Your task to perform on an android device: turn vacation reply on in the gmail app Image 0: 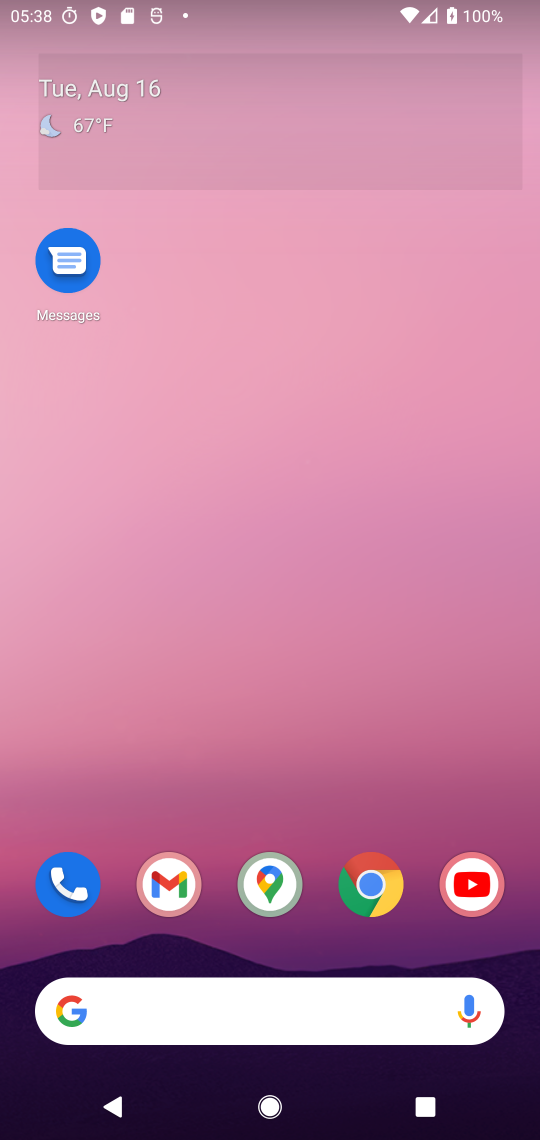
Step 0: click (177, 889)
Your task to perform on an android device: turn vacation reply on in the gmail app Image 1: 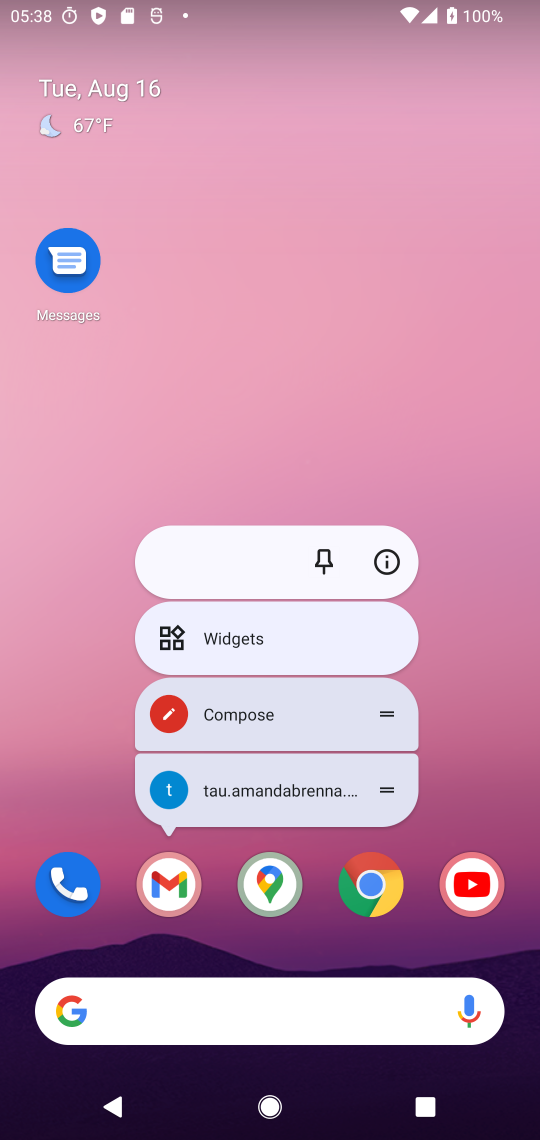
Step 1: click (168, 915)
Your task to perform on an android device: turn vacation reply on in the gmail app Image 2: 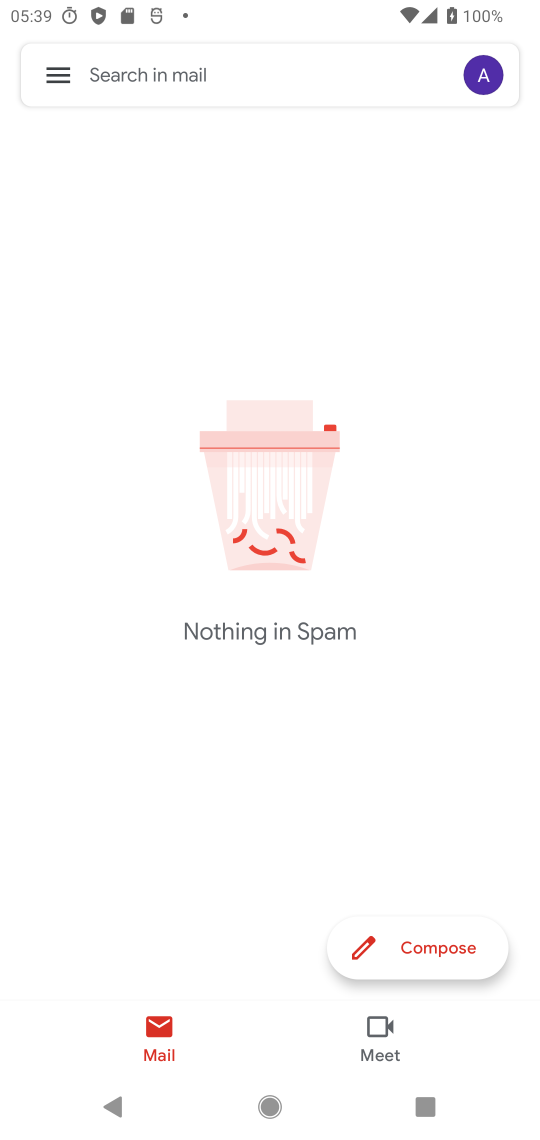
Step 2: task complete